Your task to perform on an android device: What is the speed of a plane? Image 0: 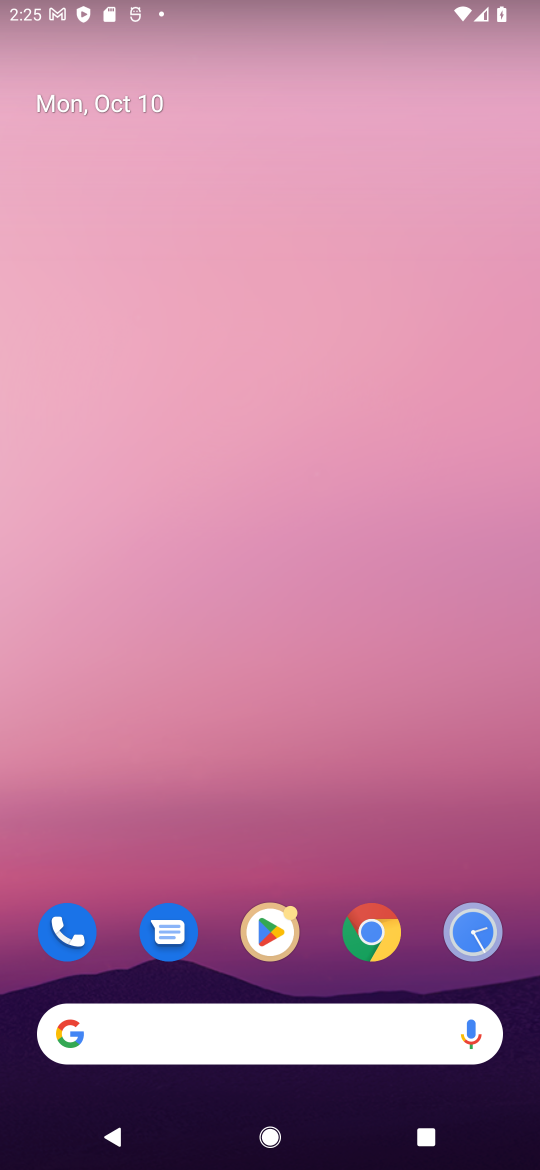
Step 0: click (207, 1029)
Your task to perform on an android device: What is the speed of a plane? Image 1: 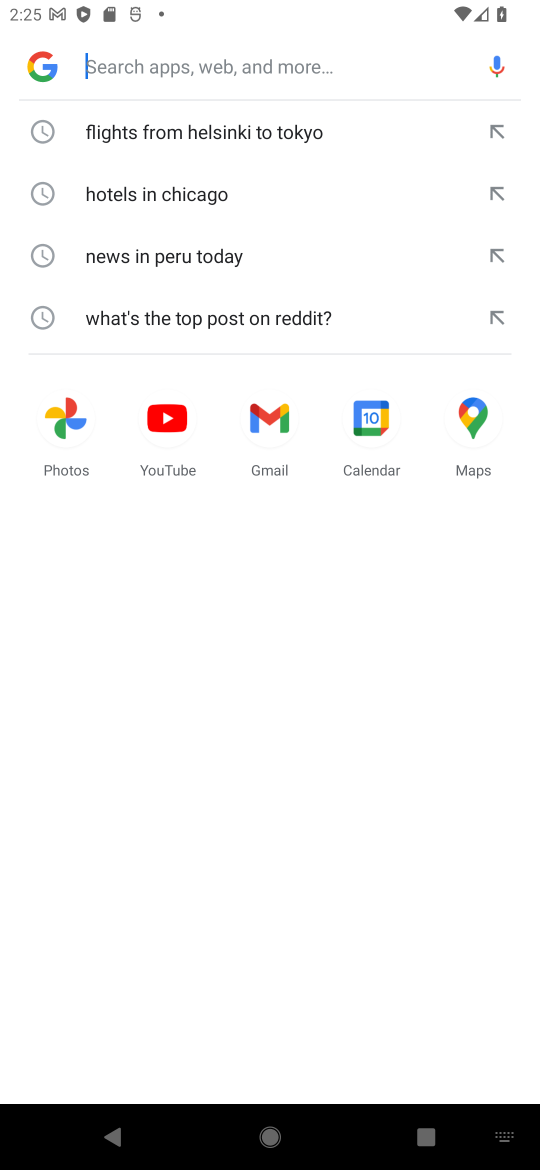
Step 1: type "What is the speed of a plane?"
Your task to perform on an android device: What is the speed of a plane? Image 2: 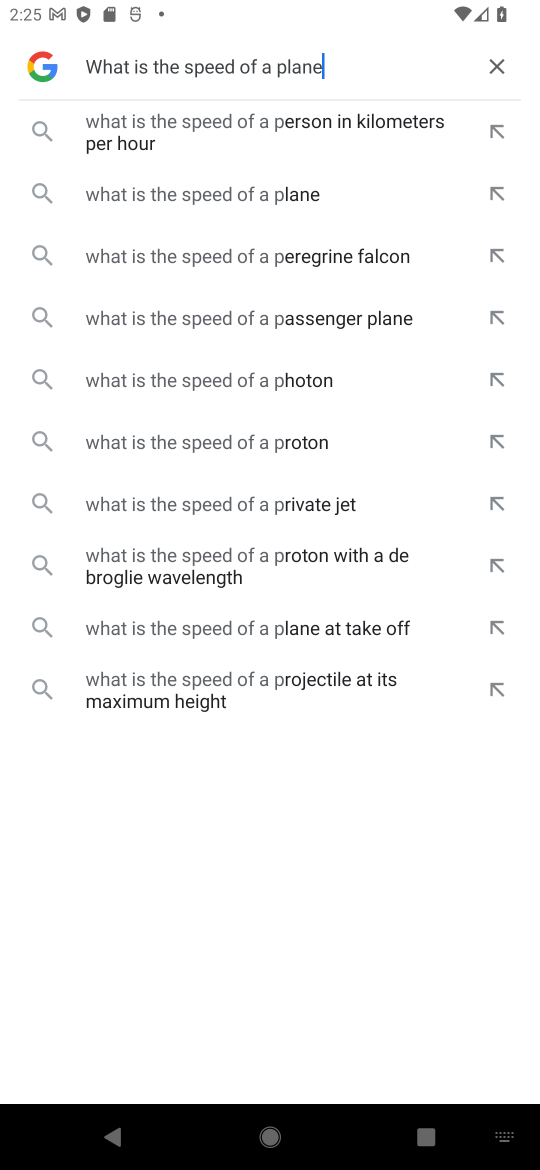
Step 2: press enter
Your task to perform on an android device: What is the speed of a plane? Image 3: 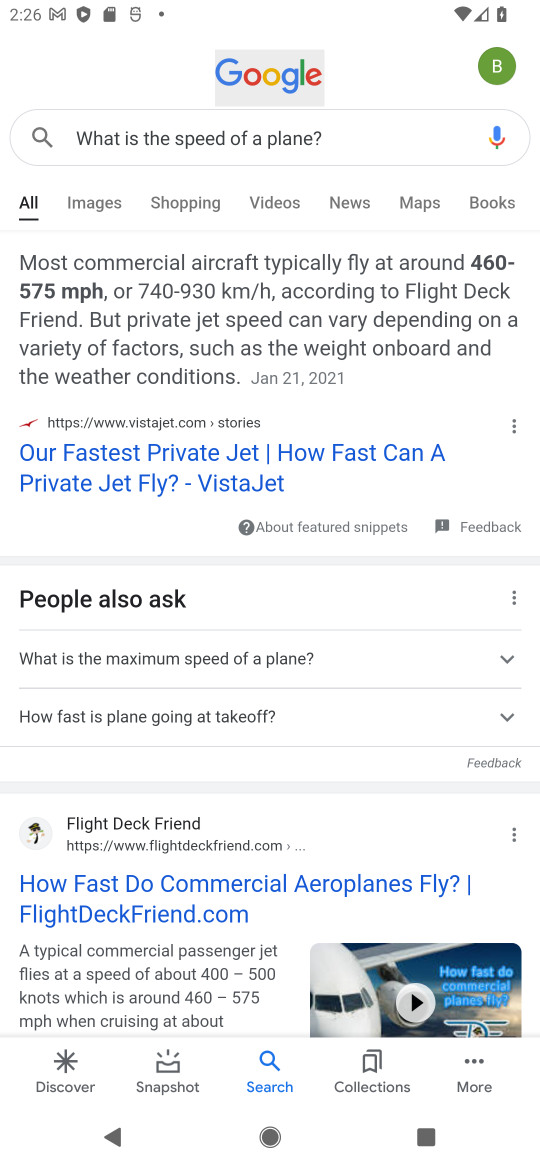
Step 3: task complete